Your task to perform on an android device: uninstall "Microsoft Excel" Image 0: 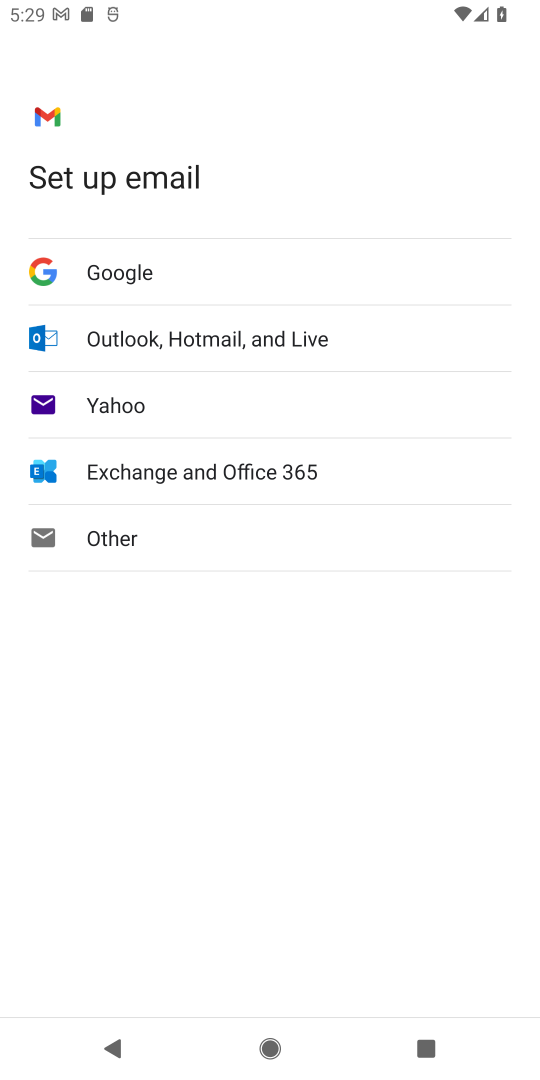
Step 0: press home button
Your task to perform on an android device: uninstall "Microsoft Excel" Image 1: 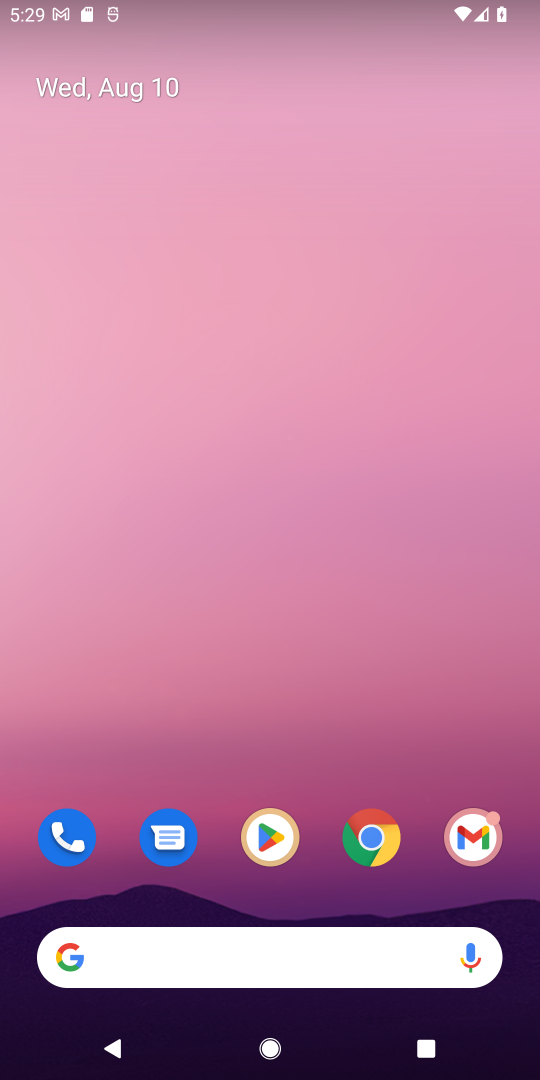
Step 1: click (261, 842)
Your task to perform on an android device: uninstall "Microsoft Excel" Image 2: 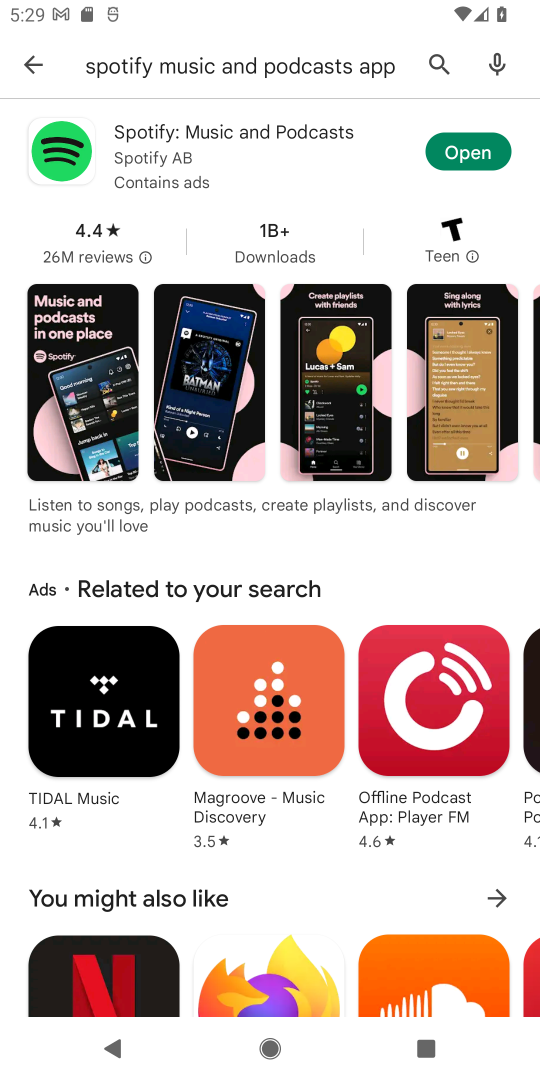
Step 2: click (443, 51)
Your task to perform on an android device: uninstall "Microsoft Excel" Image 3: 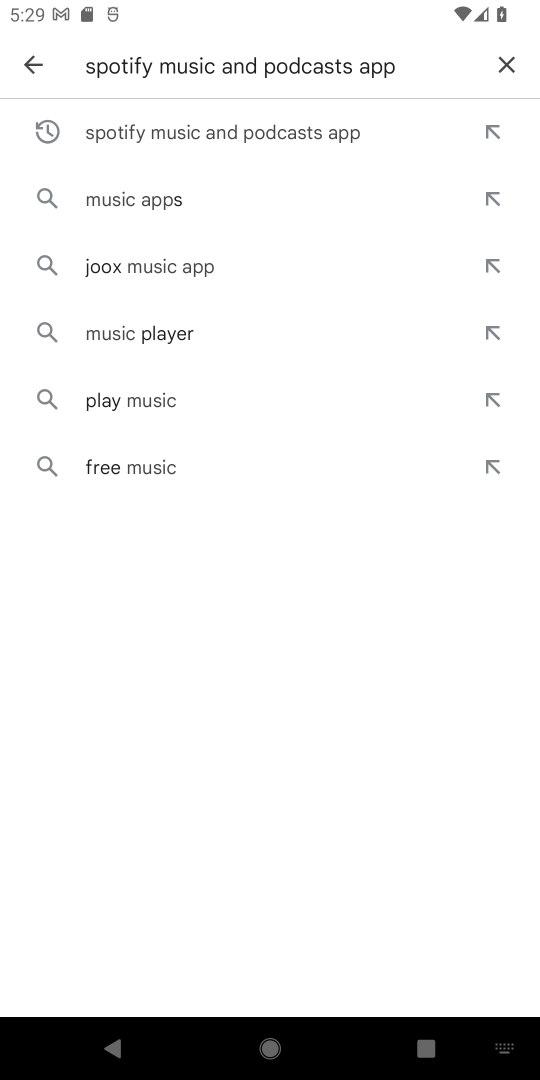
Step 3: click (505, 59)
Your task to perform on an android device: uninstall "Microsoft Excel" Image 4: 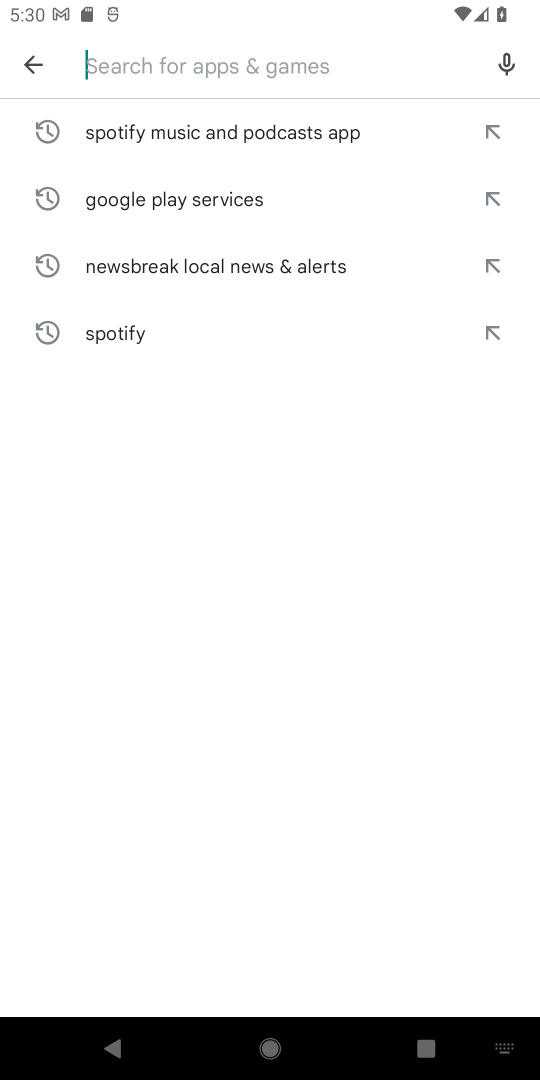
Step 4: type "Microsoft Excel"
Your task to perform on an android device: uninstall "Microsoft Excel" Image 5: 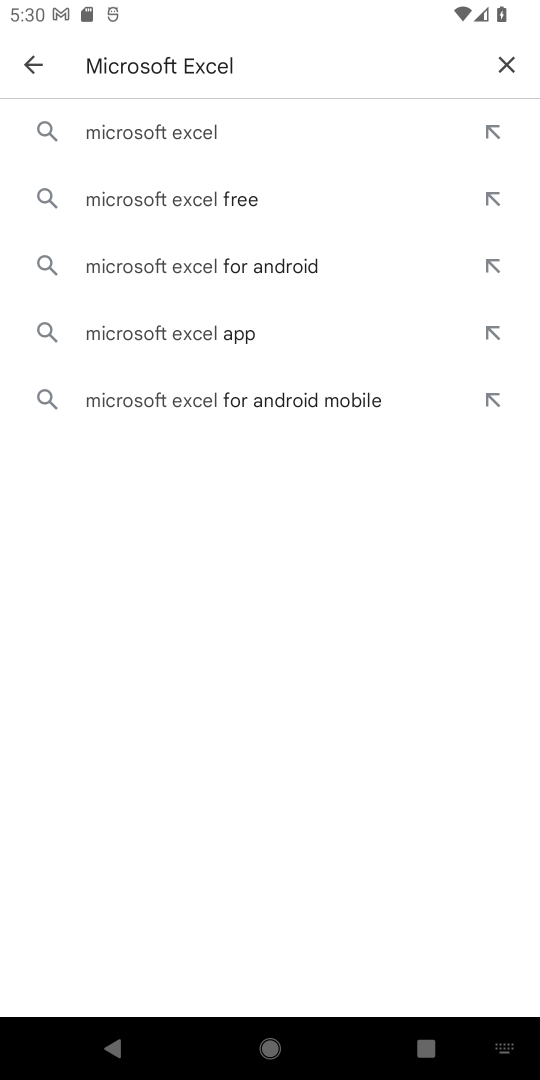
Step 5: click (185, 136)
Your task to perform on an android device: uninstall "Microsoft Excel" Image 6: 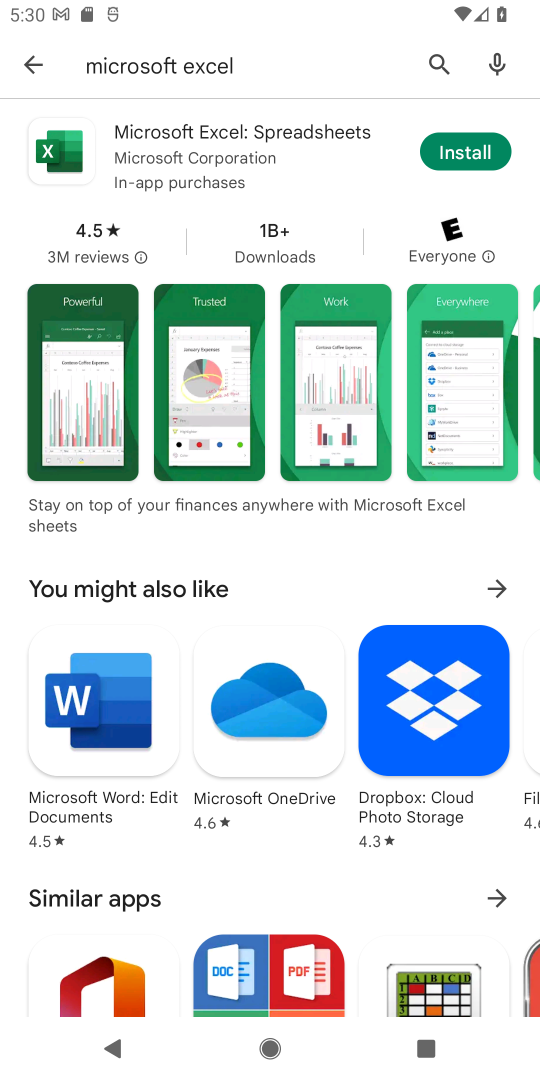
Step 6: task complete